Your task to perform on an android device: change the upload size in google photos Image 0: 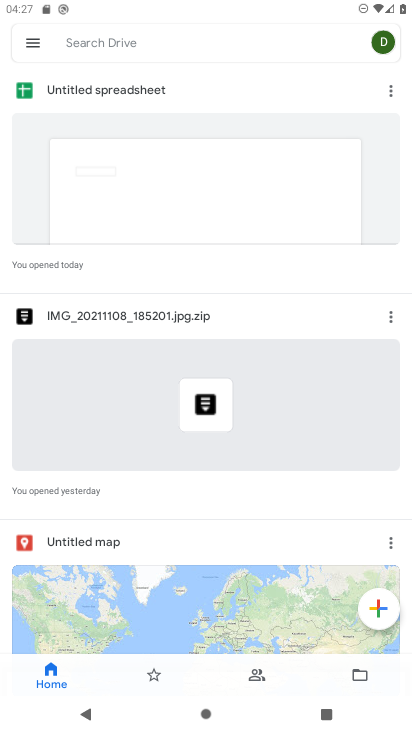
Step 0: press home button
Your task to perform on an android device: change the upload size in google photos Image 1: 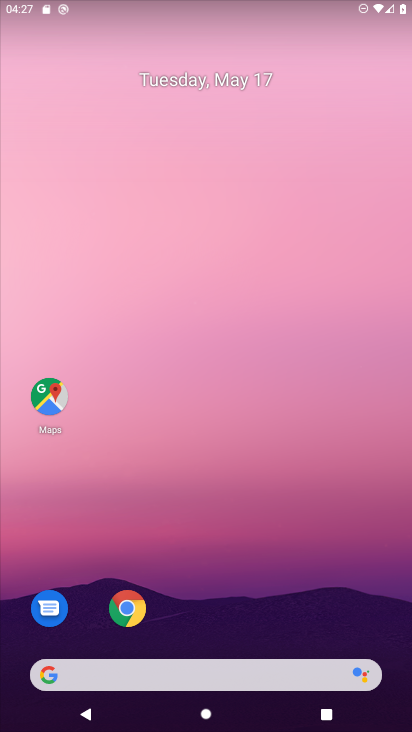
Step 1: drag from (181, 557) to (183, 344)
Your task to perform on an android device: change the upload size in google photos Image 2: 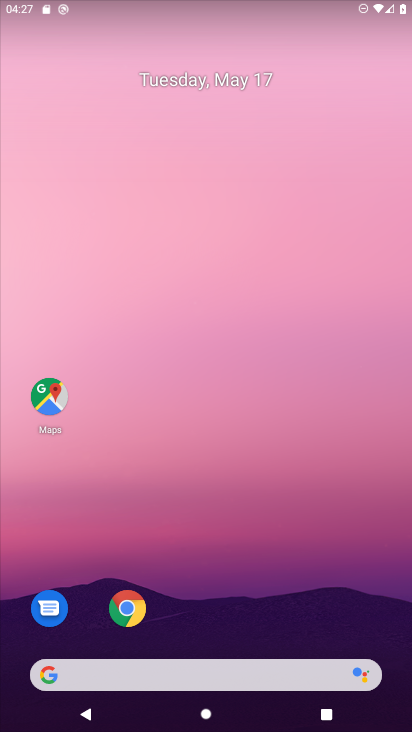
Step 2: drag from (248, 584) to (233, 229)
Your task to perform on an android device: change the upload size in google photos Image 3: 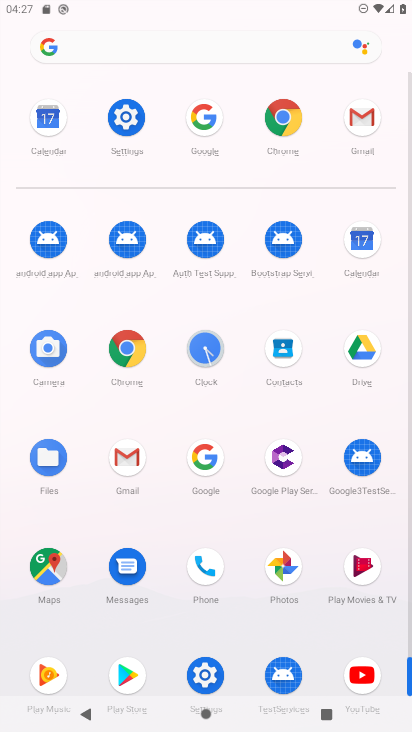
Step 3: click (275, 569)
Your task to perform on an android device: change the upload size in google photos Image 4: 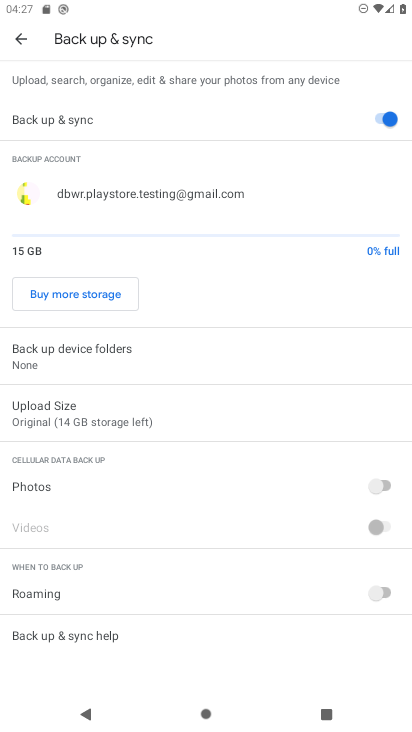
Step 4: click (45, 415)
Your task to perform on an android device: change the upload size in google photos Image 5: 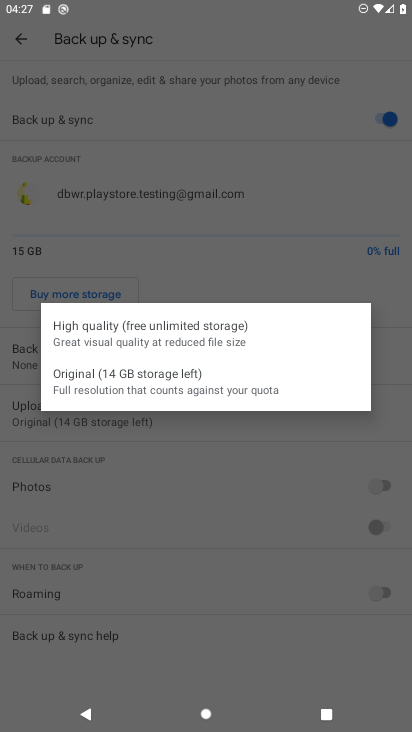
Step 5: click (76, 382)
Your task to perform on an android device: change the upload size in google photos Image 6: 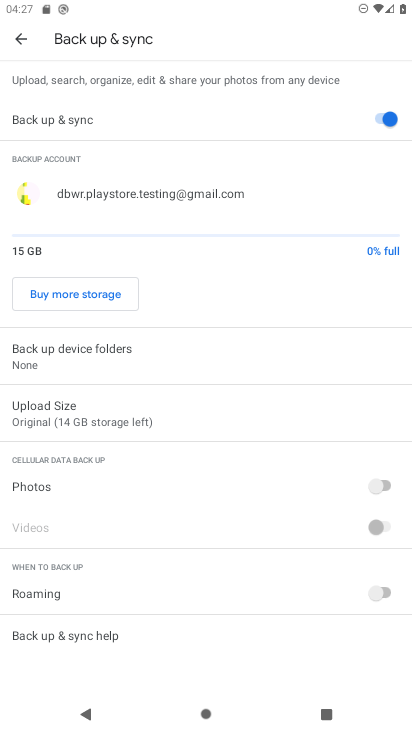
Step 6: click (56, 415)
Your task to perform on an android device: change the upload size in google photos Image 7: 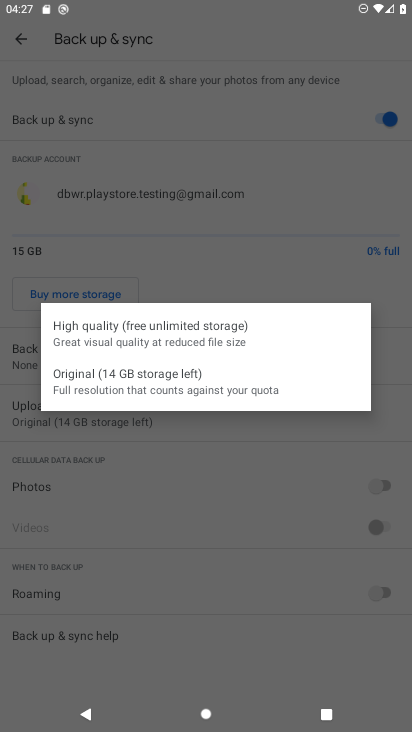
Step 7: click (99, 331)
Your task to perform on an android device: change the upload size in google photos Image 8: 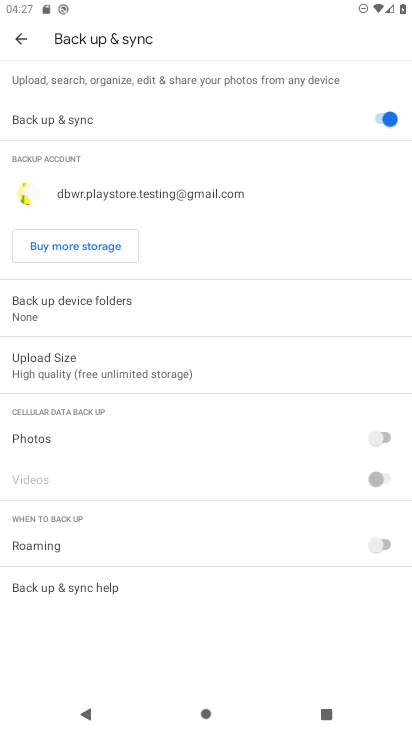
Step 8: task complete